Your task to perform on an android device: toggle translation in the chrome app Image 0: 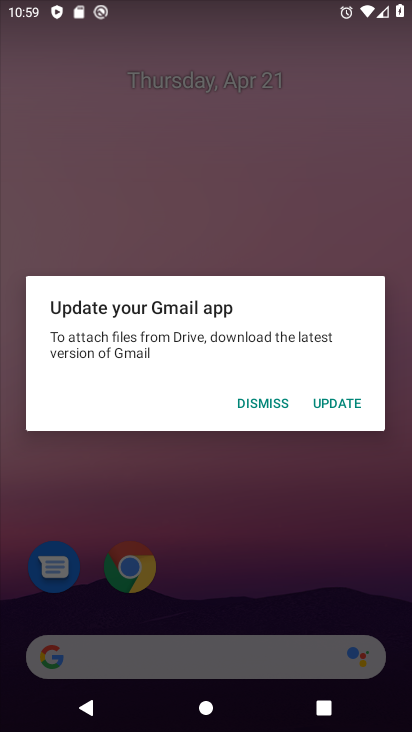
Step 0: click (269, 396)
Your task to perform on an android device: toggle translation in the chrome app Image 1: 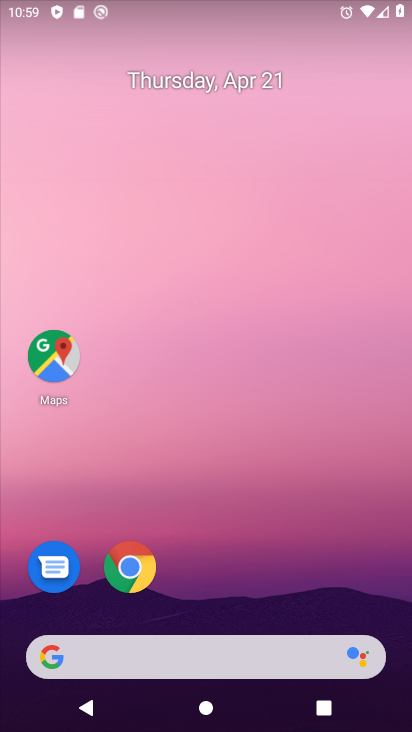
Step 1: click (130, 562)
Your task to perform on an android device: toggle translation in the chrome app Image 2: 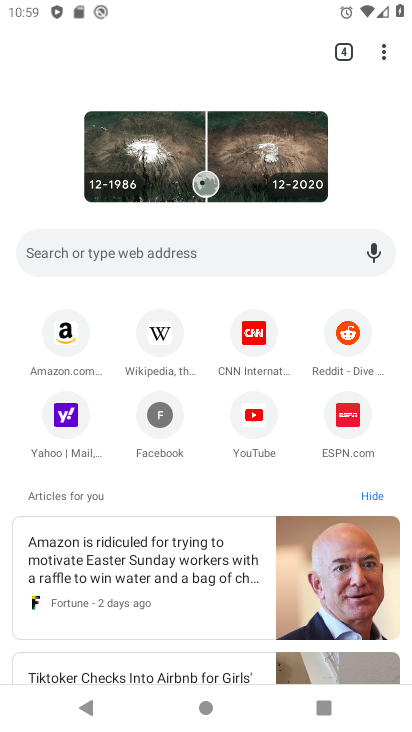
Step 2: click (387, 64)
Your task to perform on an android device: toggle translation in the chrome app Image 3: 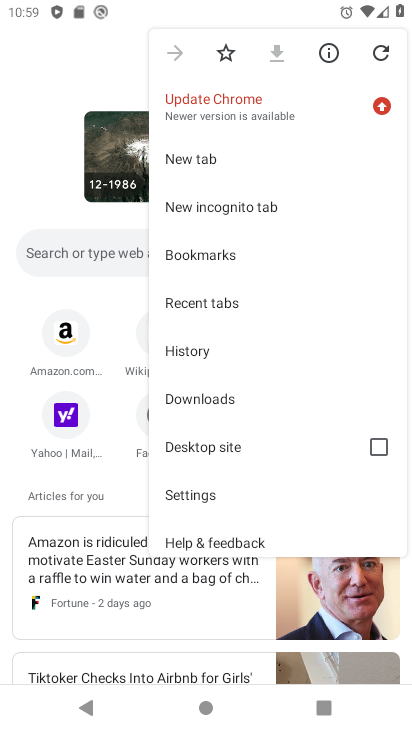
Step 3: click (214, 502)
Your task to perform on an android device: toggle translation in the chrome app Image 4: 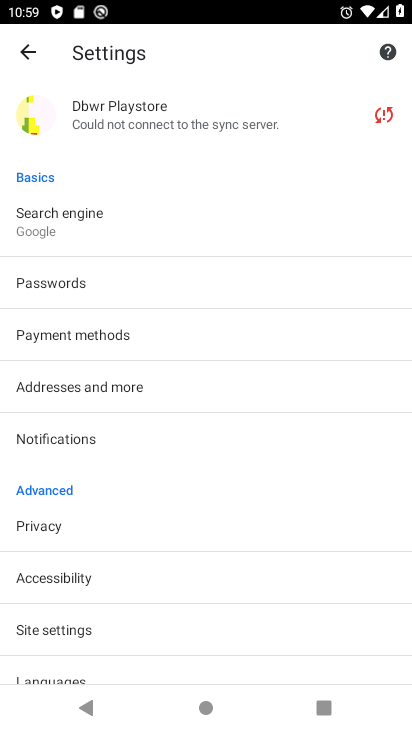
Step 4: drag from (89, 597) to (118, 374)
Your task to perform on an android device: toggle translation in the chrome app Image 5: 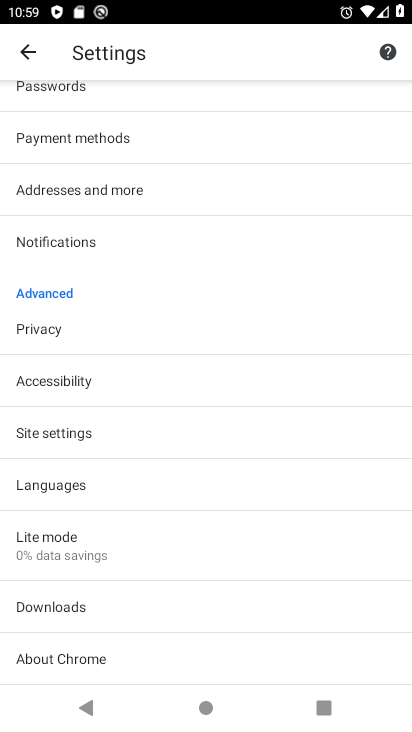
Step 5: click (99, 491)
Your task to perform on an android device: toggle translation in the chrome app Image 6: 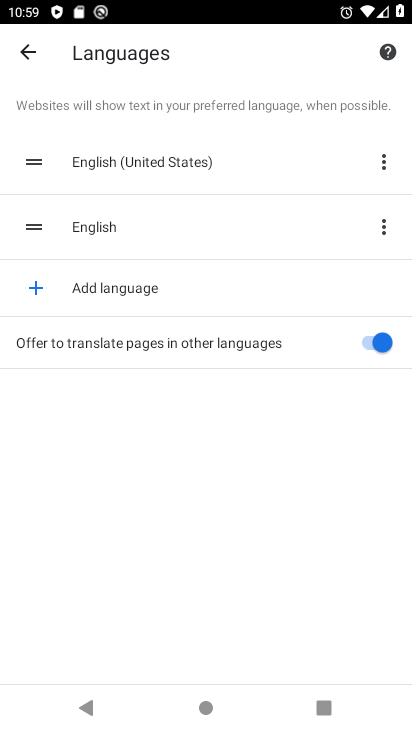
Step 6: click (369, 330)
Your task to perform on an android device: toggle translation in the chrome app Image 7: 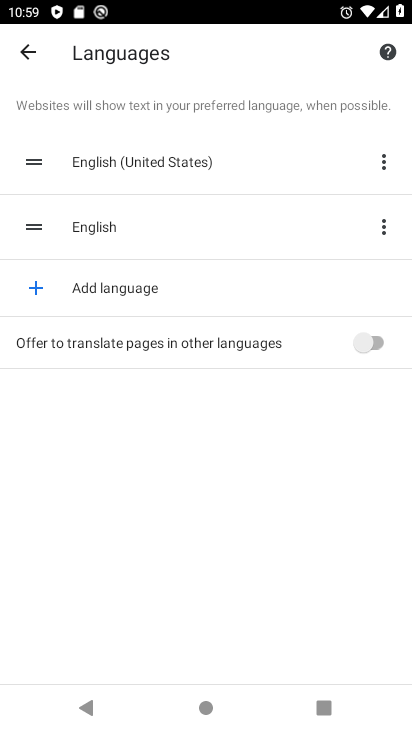
Step 7: task complete